Your task to perform on an android device: turn smart compose on in the gmail app Image 0: 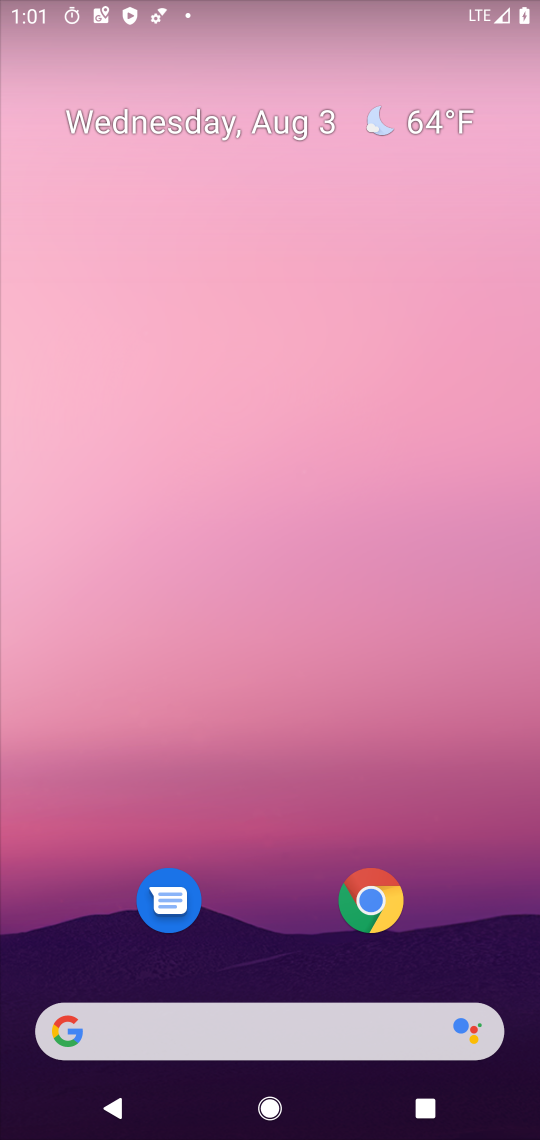
Step 0: drag from (433, 718) to (432, 69)
Your task to perform on an android device: turn smart compose on in the gmail app Image 1: 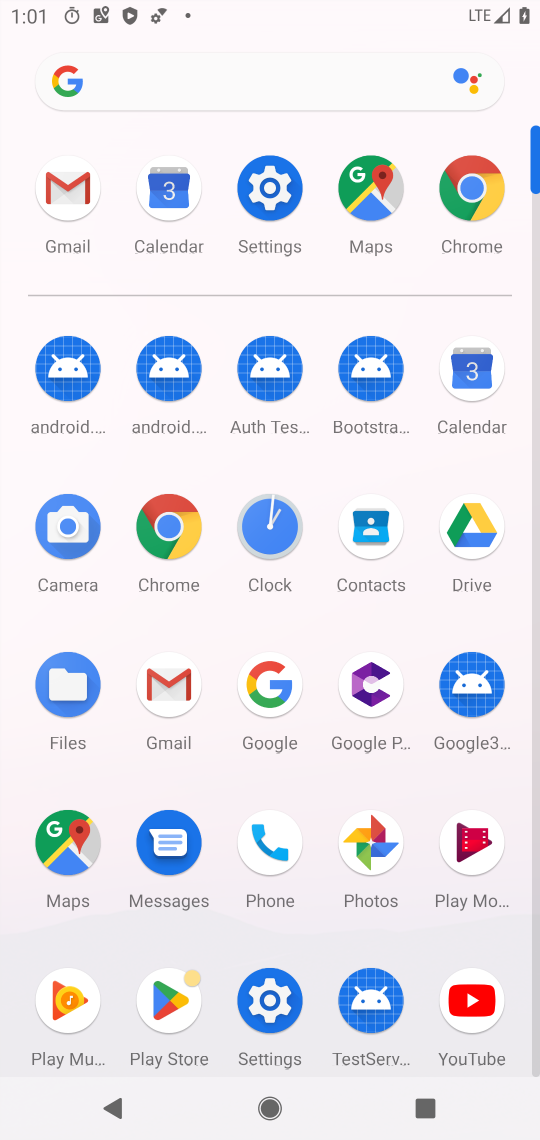
Step 1: click (170, 692)
Your task to perform on an android device: turn smart compose on in the gmail app Image 2: 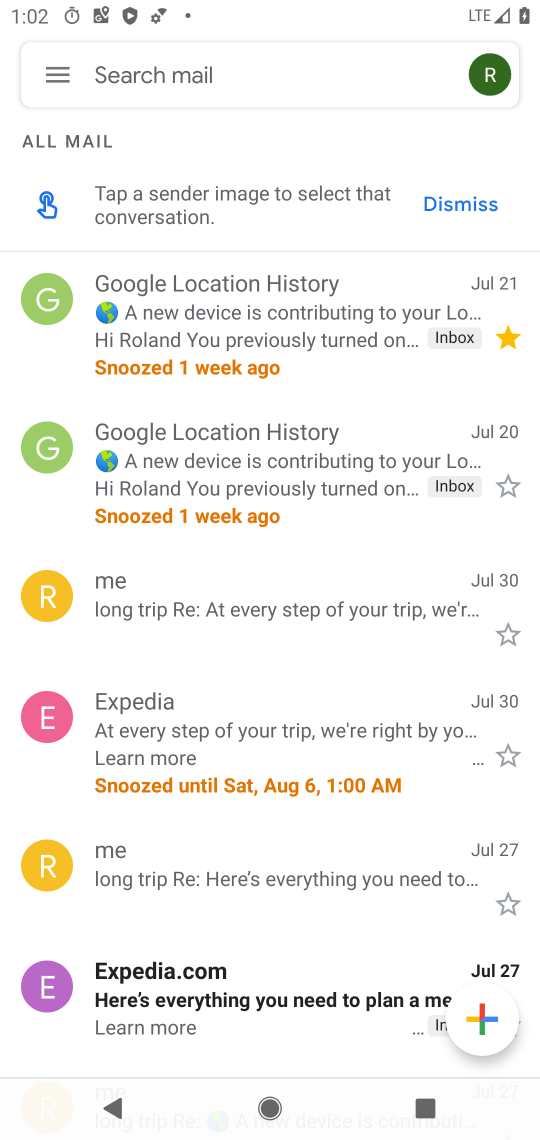
Step 2: click (53, 74)
Your task to perform on an android device: turn smart compose on in the gmail app Image 3: 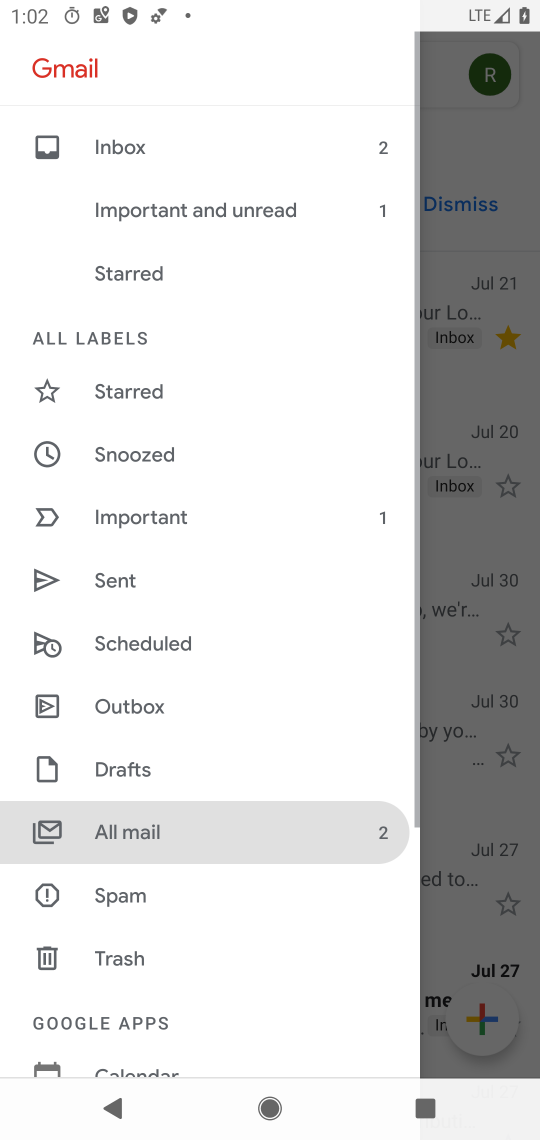
Step 3: drag from (168, 943) to (233, 261)
Your task to perform on an android device: turn smart compose on in the gmail app Image 4: 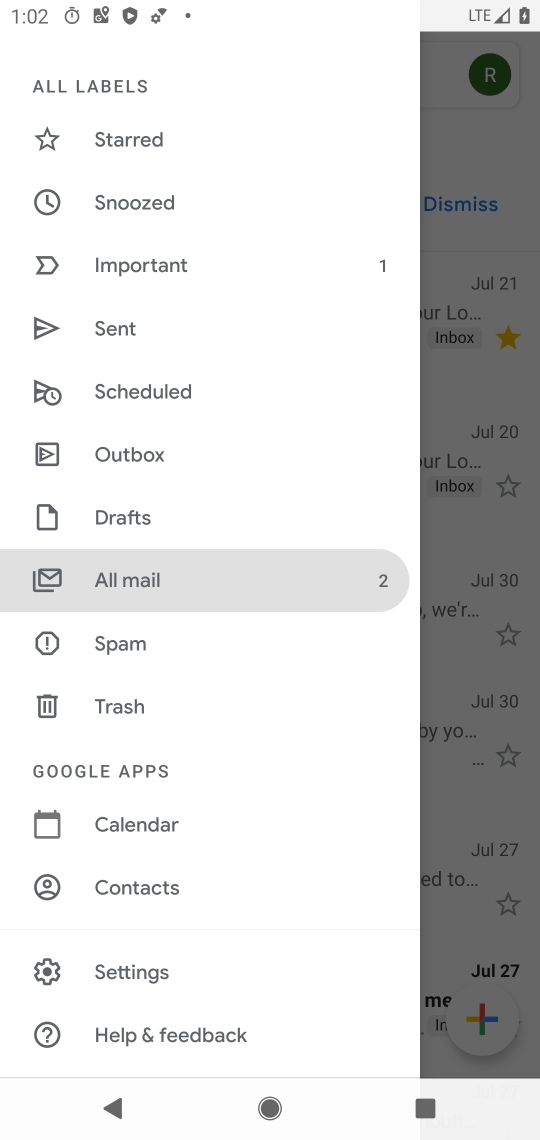
Step 4: click (147, 966)
Your task to perform on an android device: turn smart compose on in the gmail app Image 5: 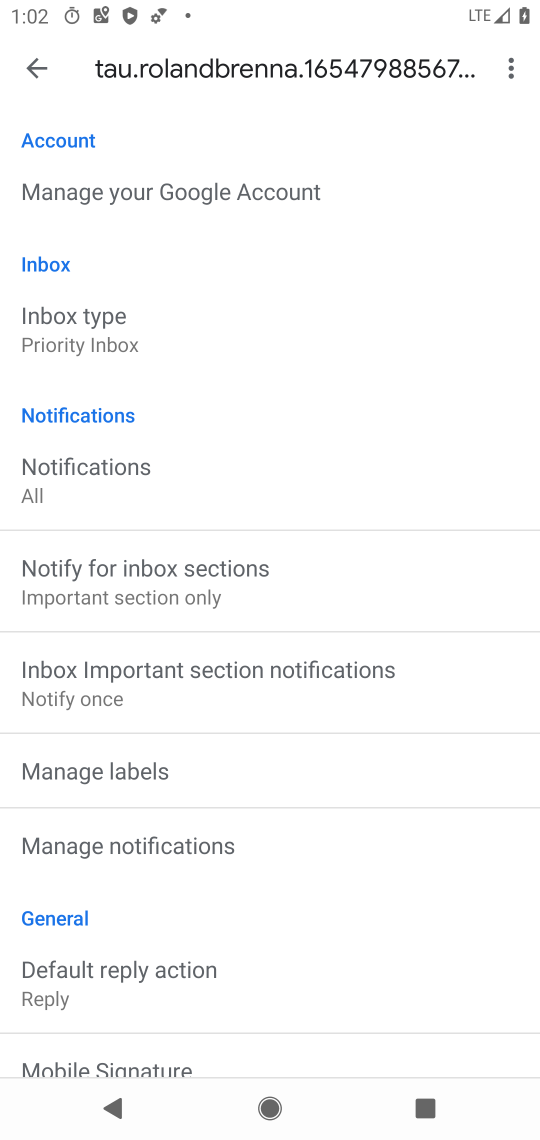
Step 5: task complete